Your task to perform on an android device: open app "Walmart Shopping & Grocery" (install if not already installed) Image 0: 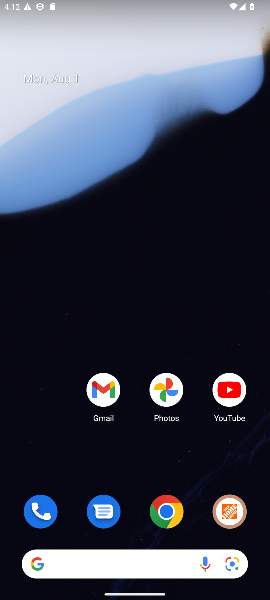
Step 0: drag from (190, 511) to (192, 157)
Your task to perform on an android device: open app "Walmart Shopping & Grocery" (install if not already installed) Image 1: 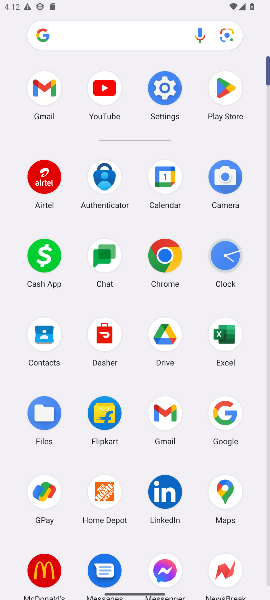
Step 1: click (223, 88)
Your task to perform on an android device: open app "Walmart Shopping & Grocery" (install if not already installed) Image 2: 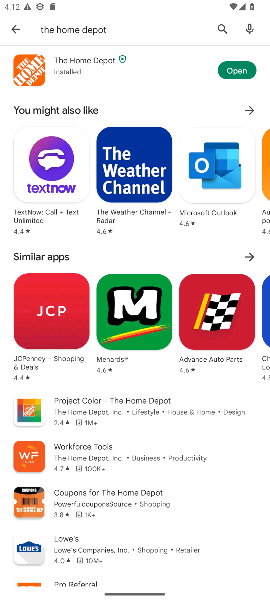
Step 2: click (19, 29)
Your task to perform on an android device: open app "Walmart Shopping & Grocery" (install if not already installed) Image 3: 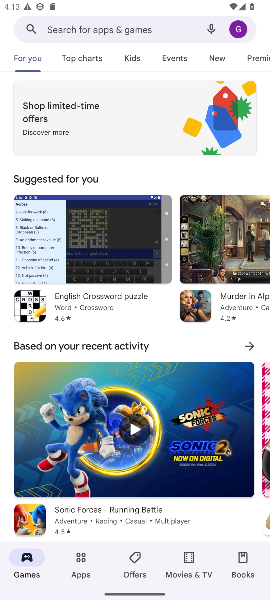
Step 3: click (72, 25)
Your task to perform on an android device: open app "Walmart Shopping & Grocery" (install if not already installed) Image 4: 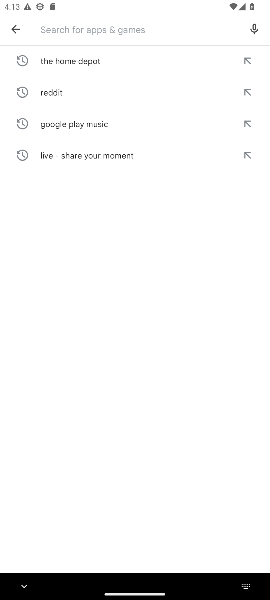
Step 4: type "Walmart Shopping & Grocery"
Your task to perform on an android device: open app "Walmart Shopping & Grocery" (install if not already installed) Image 5: 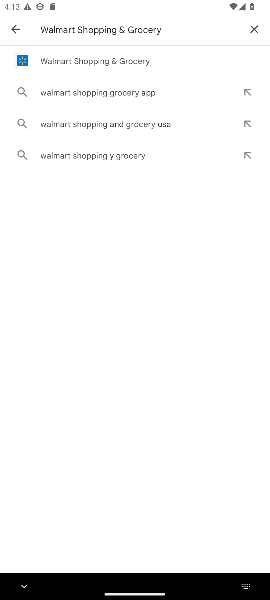
Step 5: click (131, 63)
Your task to perform on an android device: open app "Walmart Shopping & Grocery" (install if not already installed) Image 6: 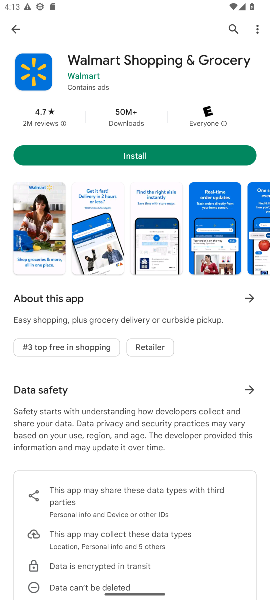
Step 6: click (132, 157)
Your task to perform on an android device: open app "Walmart Shopping & Grocery" (install if not already installed) Image 7: 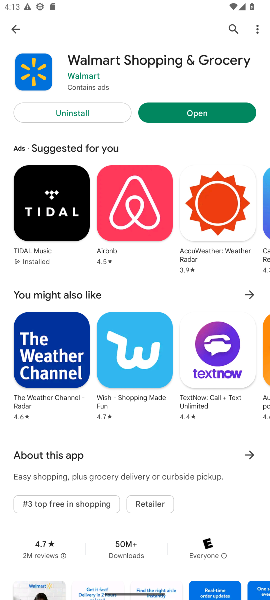
Step 7: click (187, 115)
Your task to perform on an android device: open app "Walmart Shopping & Grocery" (install if not already installed) Image 8: 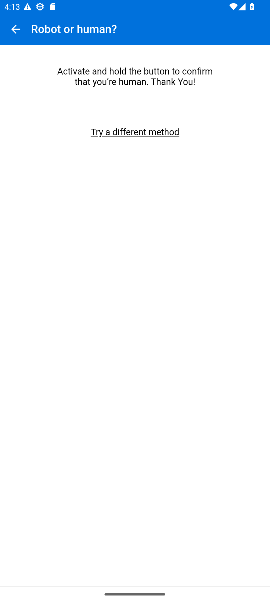
Step 8: click (113, 505)
Your task to perform on an android device: open app "Walmart Shopping & Grocery" (install if not already installed) Image 9: 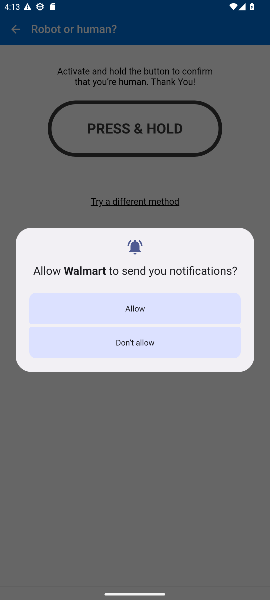
Step 9: task complete